Your task to perform on an android device: turn on data saver in the chrome app Image 0: 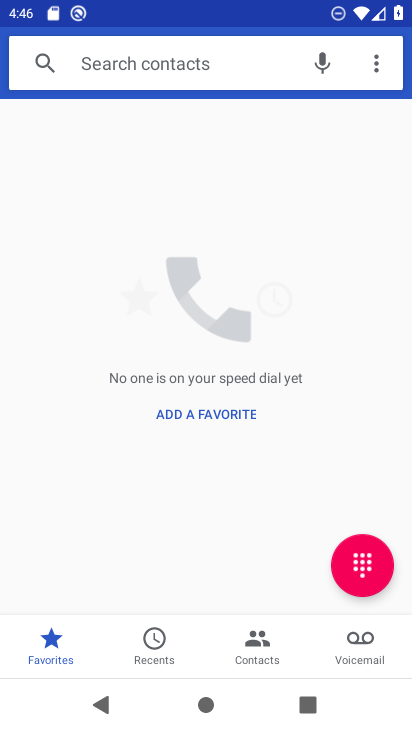
Step 0: press home button
Your task to perform on an android device: turn on data saver in the chrome app Image 1: 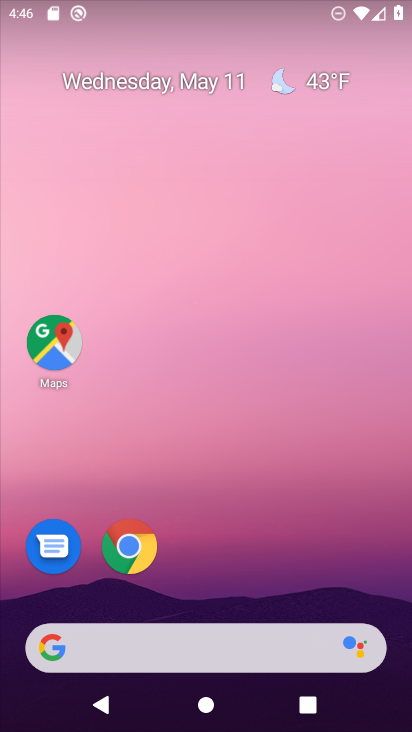
Step 1: click (136, 544)
Your task to perform on an android device: turn on data saver in the chrome app Image 2: 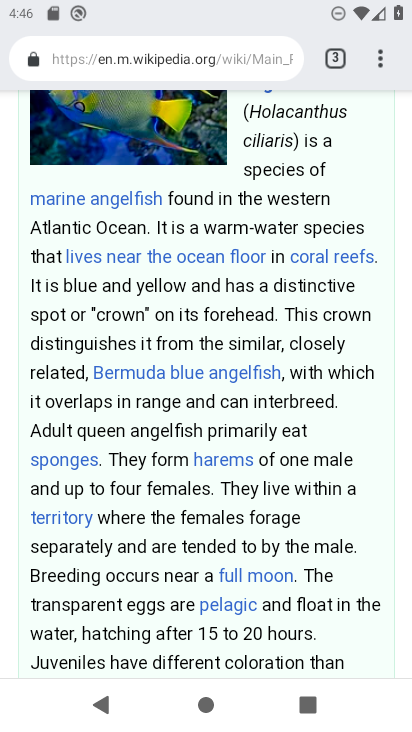
Step 2: click (375, 52)
Your task to perform on an android device: turn on data saver in the chrome app Image 3: 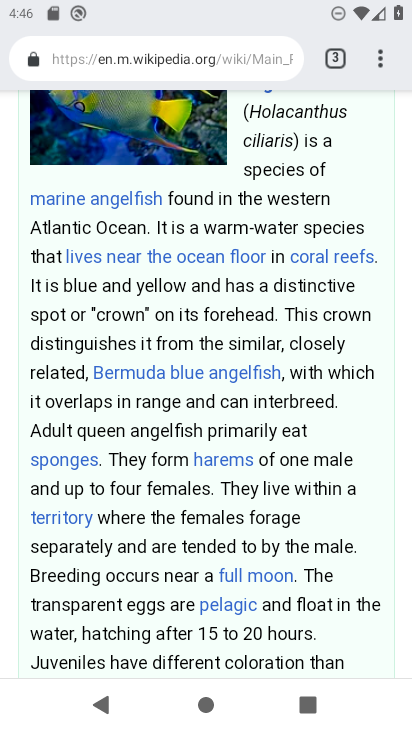
Step 3: click (380, 65)
Your task to perform on an android device: turn on data saver in the chrome app Image 4: 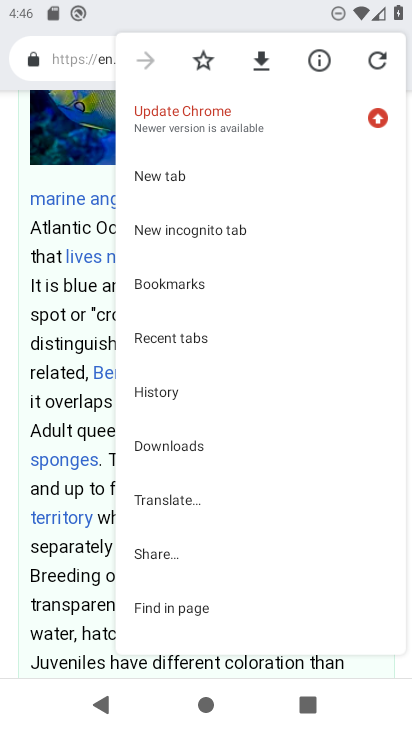
Step 4: drag from (197, 624) to (214, 324)
Your task to perform on an android device: turn on data saver in the chrome app Image 5: 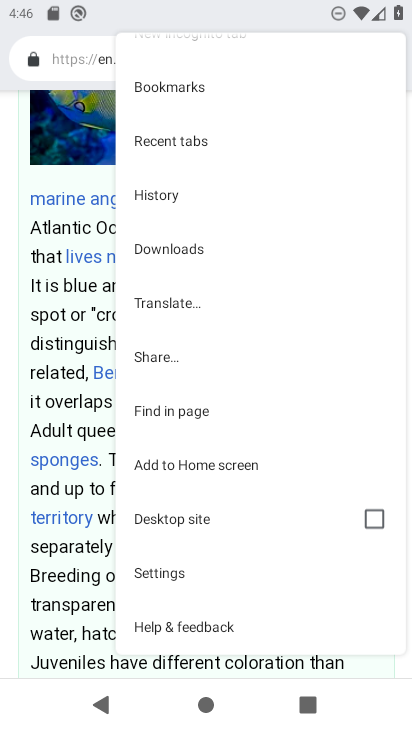
Step 5: click (171, 565)
Your task to perform on an android device: turn on data saver in the chrome app Image 6: 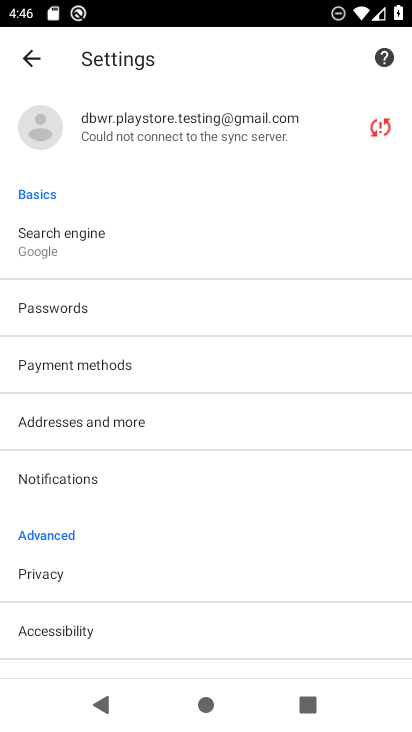
Step 6: drag from (106, 617) to (106, 412)
Your task to perform on an android device: turn on data saver in the chrome app Image 7: 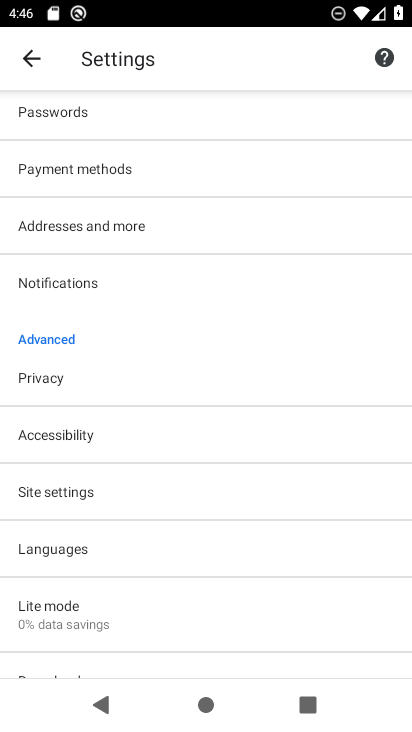
Step 7: click (63, 620)
Your task to perform on an android device: turn on data saver in the chrome app Image 8: 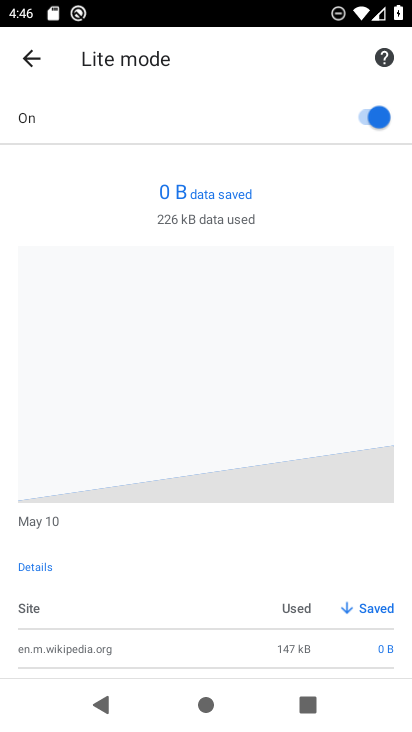
Step 8: task complete